Your task to perform on an android device: check google app version Image 0: 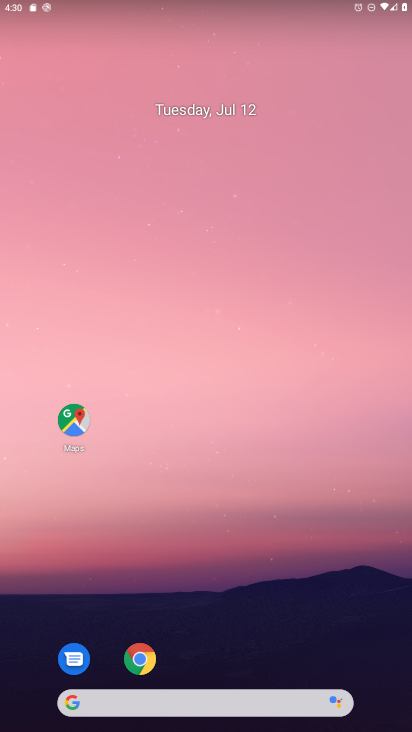
Step 0: drag from (184, 480) to (238, 1)
Your task to perform on an android device: check google app version Image 1: 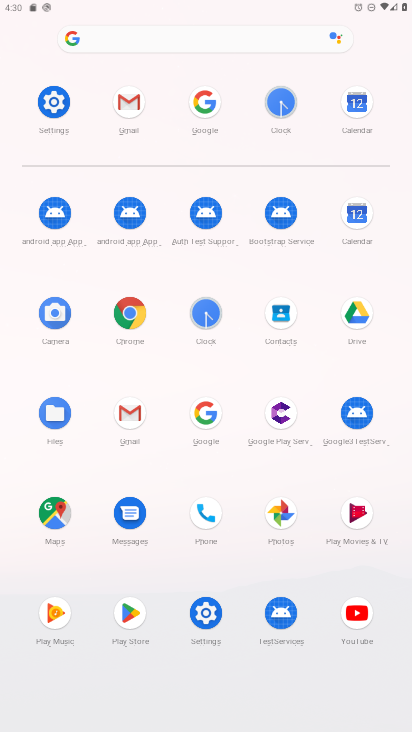
Step 1: click (210, 410)
Your task to perform on an android device: check google app version Image 2: 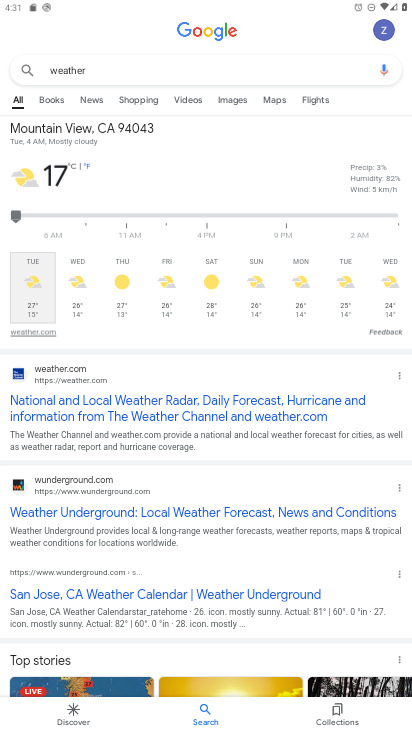
Step 2: click (384, 33)
Your task to perform on an android device: check google app version Image 3: 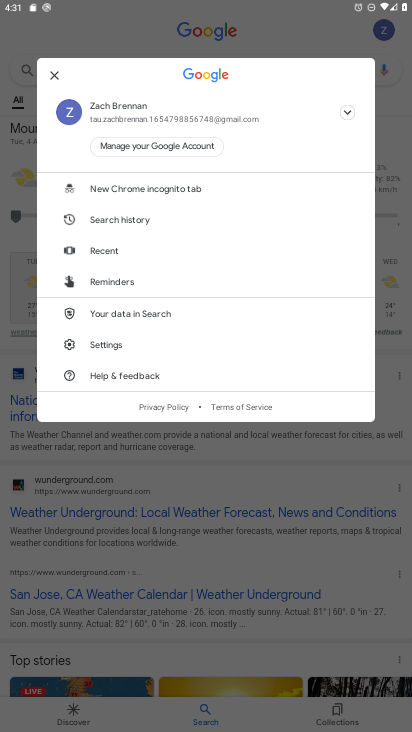
Step 3: click (118, 350)
Your task to perform on an android device: check google app version Image 4: 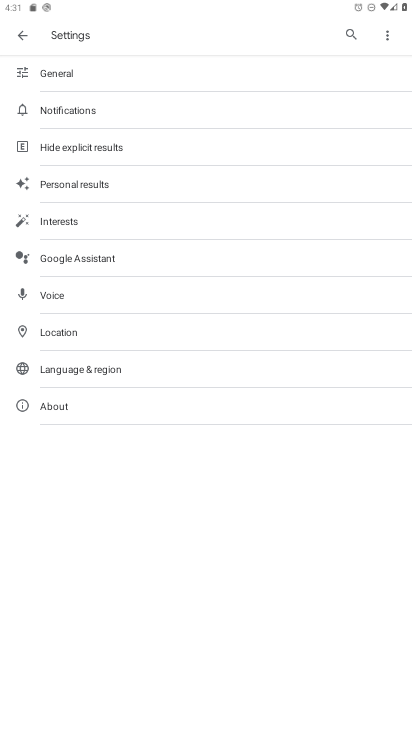
Step 4: click (58, 406)
Your task to perform on an android device: check google app version Image 5: 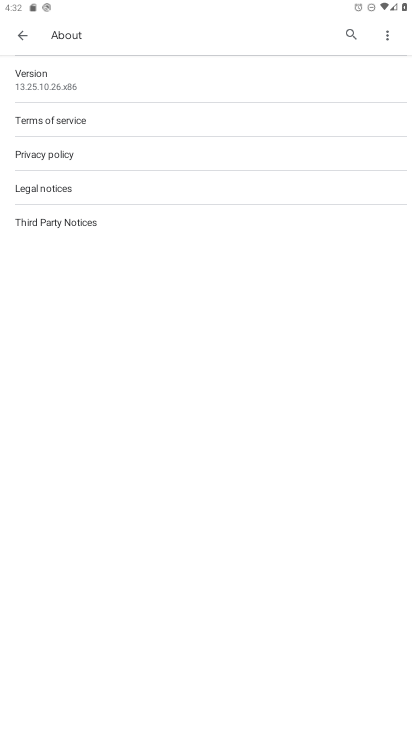
Step 5: task complete